Your task to perform on an android device: Open Google Chrome and click the shortcut for Amazon.com Image 0: 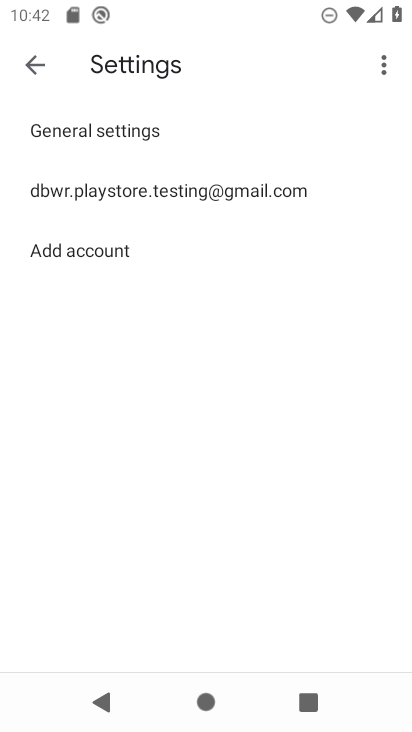
Step 0: press home button
Your task to perform on an android device: Open Google Chrome and click the shortcut for Amazon.com Image 1: 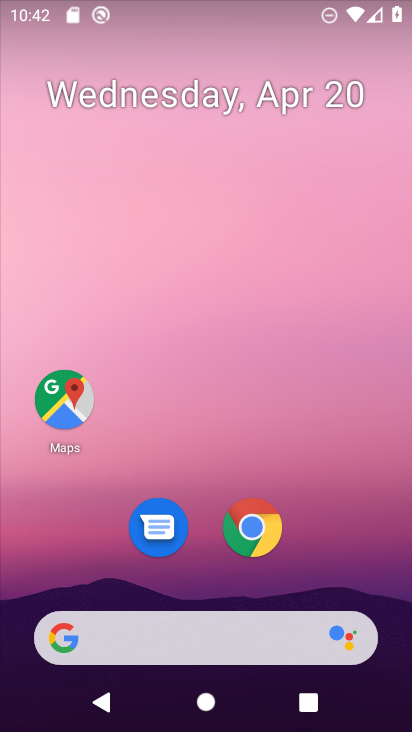
Step 1: click (256, 535)
Your task to perform on an android device: Open Google Chrome and click the shortcut for Amazon.com Image 2: 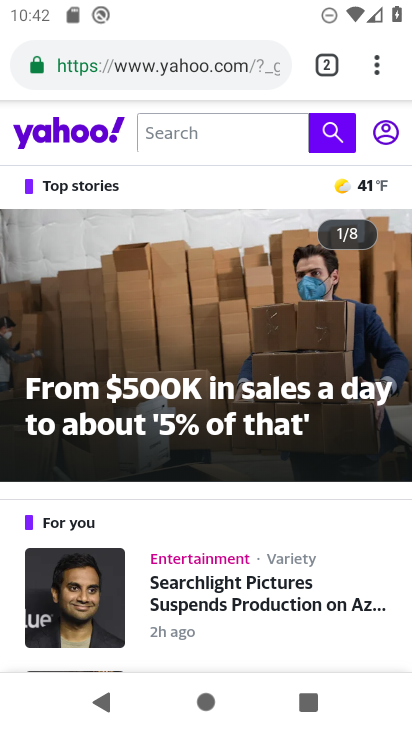
Step 2: click (335, 70)
Your task to perform on an android device: Open Google Chrome and click the shortcut for Amazon.com Image 3: 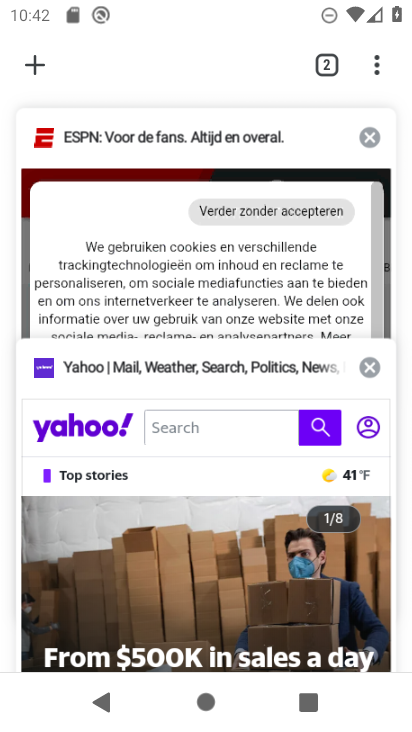
Step 3: click (31, 63)
Your task to perform on an android device: Open Google Chrome and click the shortcut for Amazon.com Image 4: 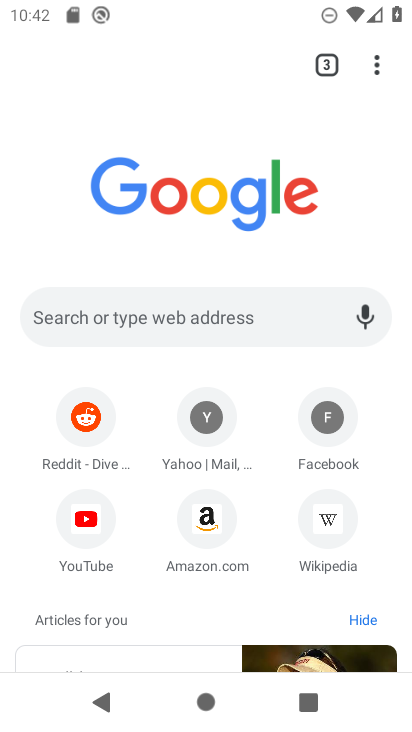
Step 4: click (215, 515)
Your task to perform on an android device: Open Google Chrome and click the shortcut for Amazon.com Image 5: 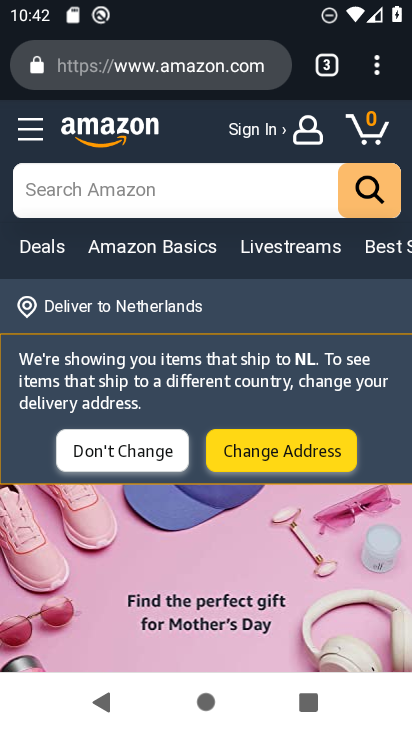
Step 5: task complete